Your task to perform on an android device: change timer sound Image 0: 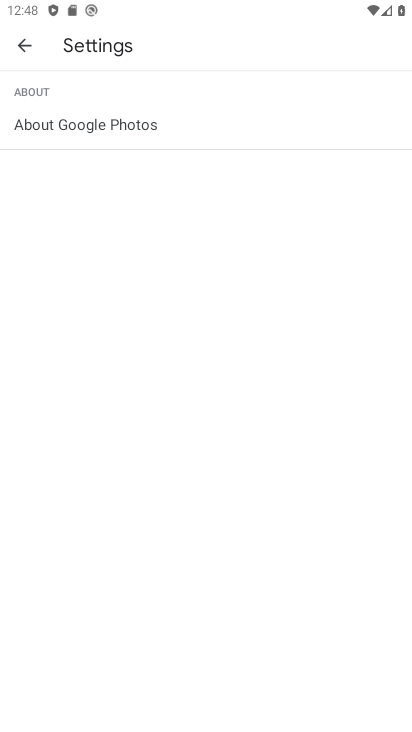
Step 0: press home button
Your task to perform on an android device: change timer sound Image 1: 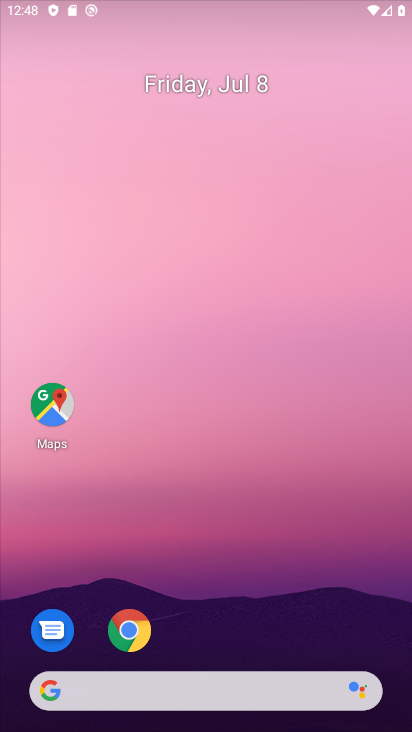
Step 1: drag from (252, 679) to (199, 111)
Your task to perform on an android device: change timer sound Image 2: 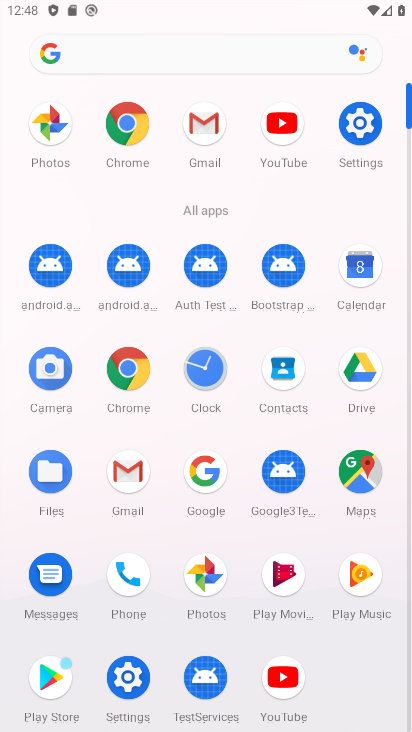
Step 2: drag from (163, 598) to (91, 412)
Your task to perform on an android device: change timer sound Image 3: 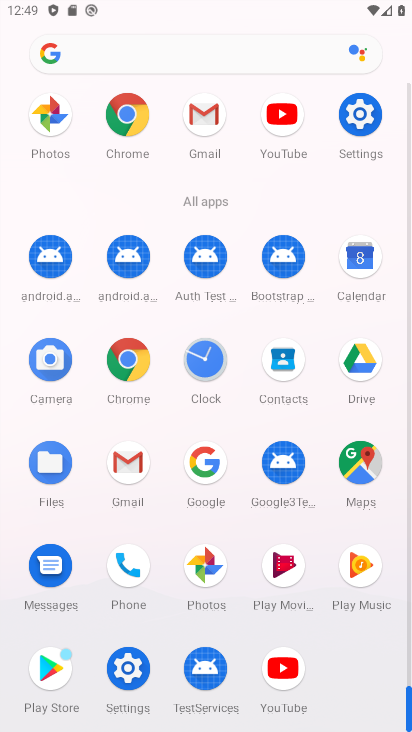
Step 3: click (201, 342)
Your task to perform on an android device: change timer sound Image 4: 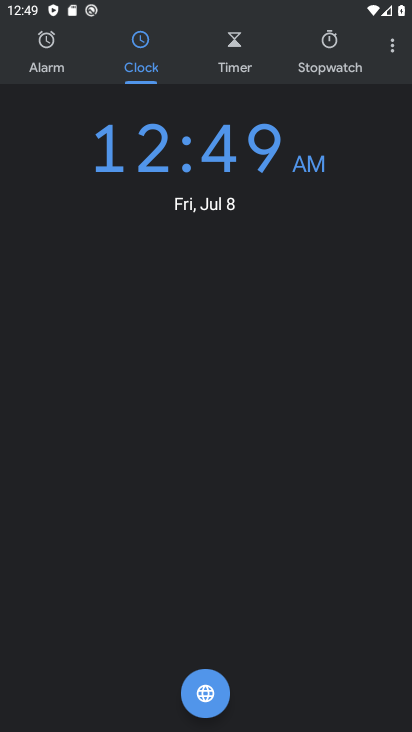
Step 4: click (382, 48)
Your task to perform on an android device: change timer sound Image 5: 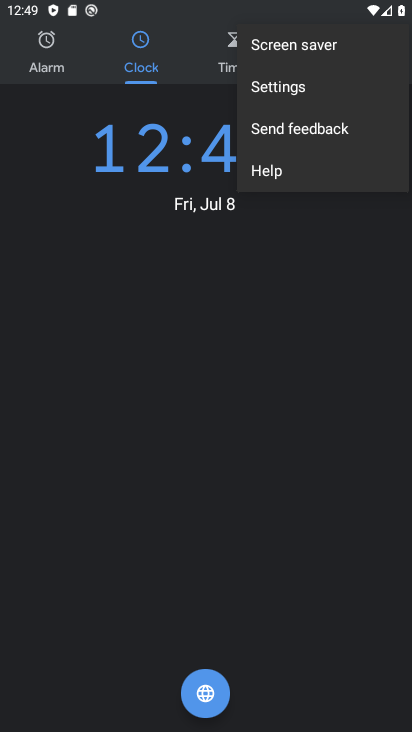
Step 5: click (314, 99)
Your task to perform on an android device: change timer sound Image 6: 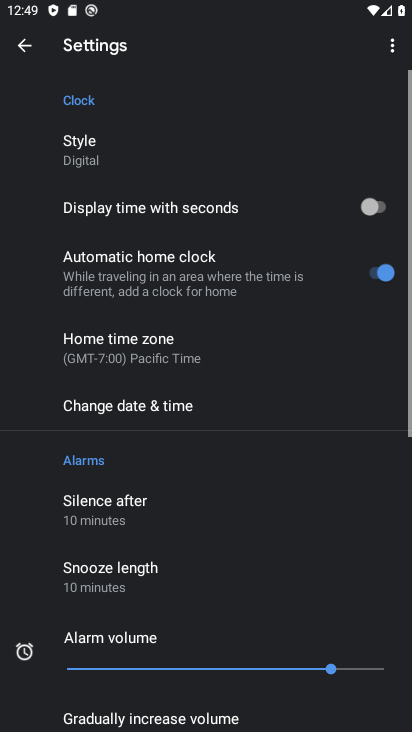
Step 6: drag from (203, 507) to (280, 31)
Your task to perform on an android device: change timer sound Image 7: 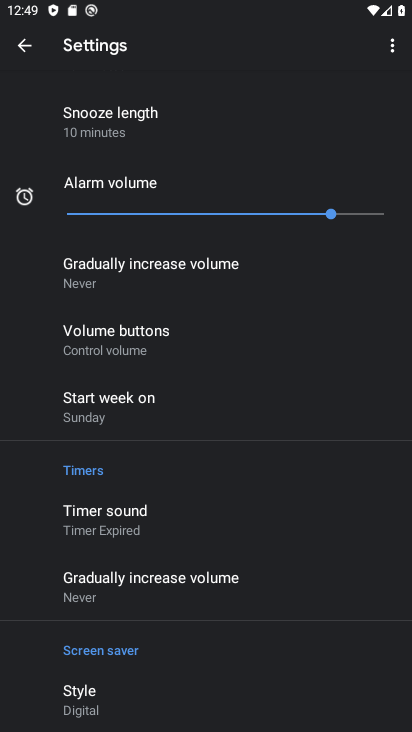
Step 7: drag from (196, 480) to (205, 445)
Your task to perform on an android device: change timer sound Image 8: 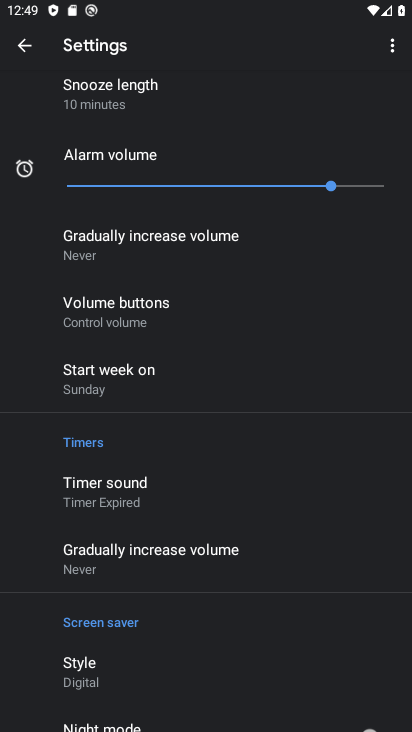
Step 8: click (164, 506)
Your task to perform on an android device: change timer sound Image 9: 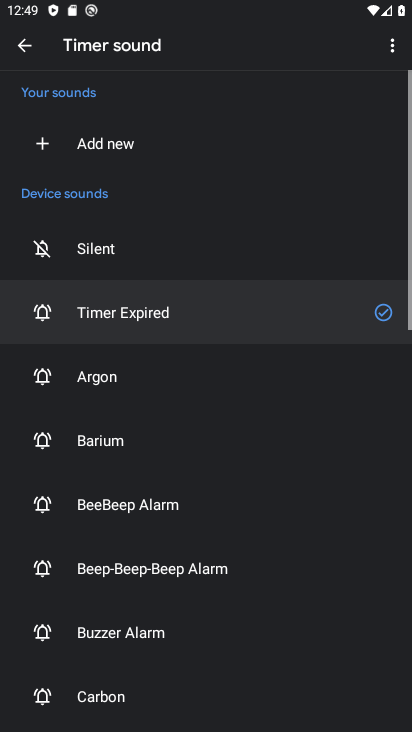
Step 9: click (126, 471)
Your task to perform on an android device: change timer sound Image 10: 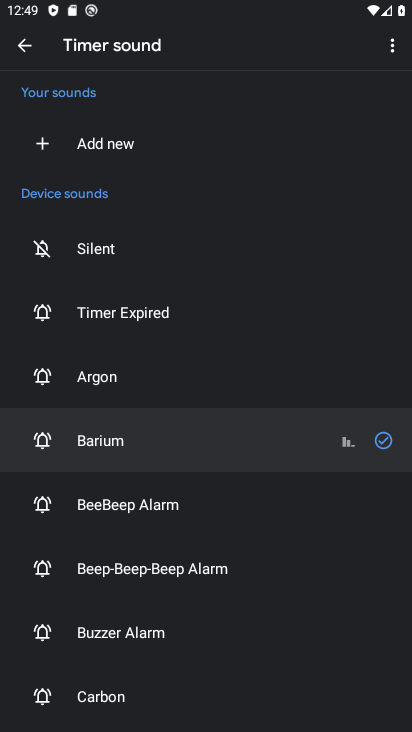
Step 10: task complete